Your task to perform on an android device: Open maps Image 0: 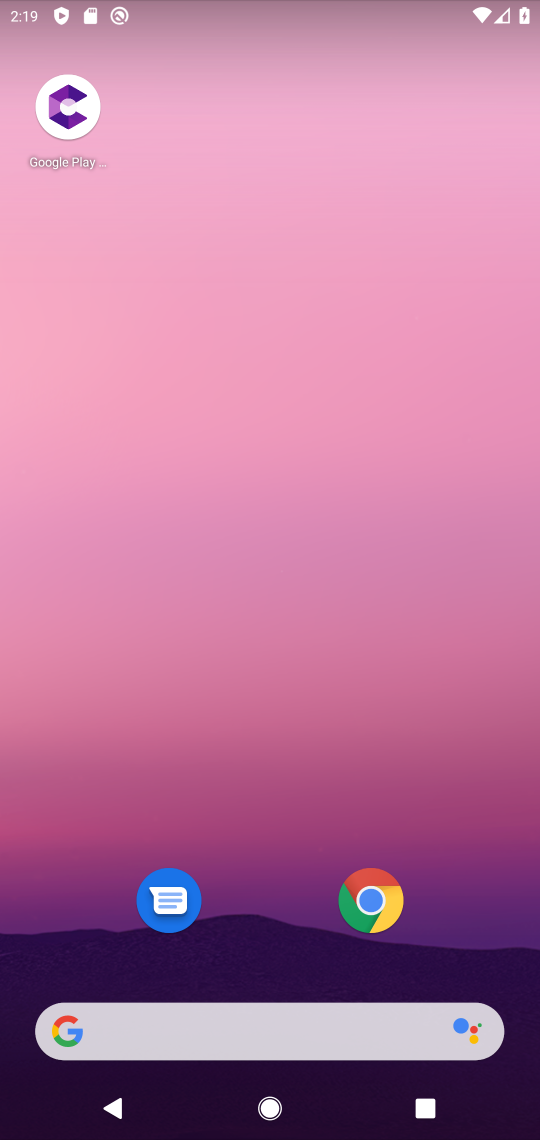
Step 0: drag from (470, 917) to (306, 187)
Your task to perform on an android device: Open maps Image 1: 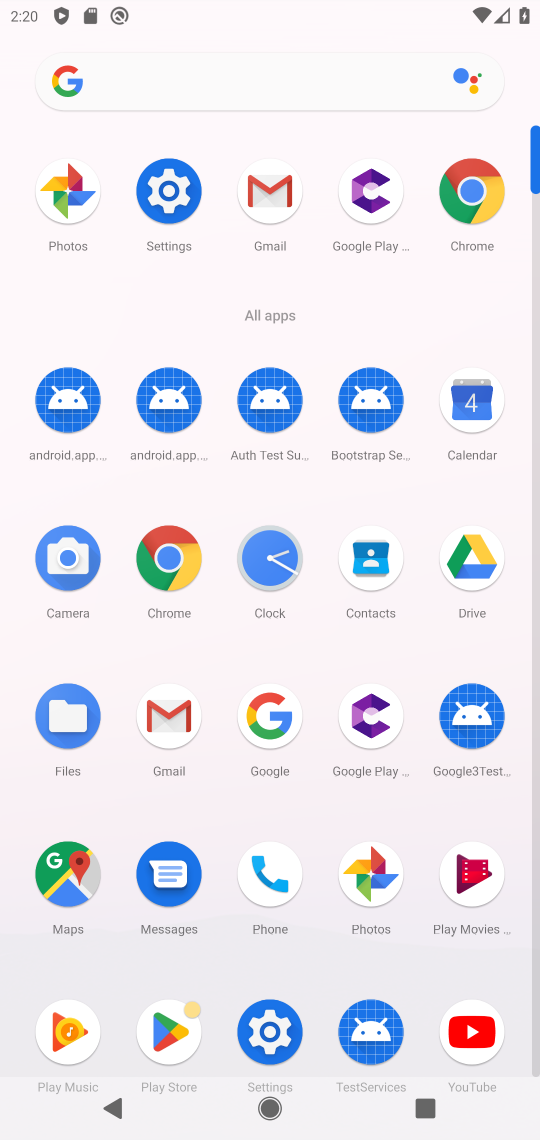
Step 1: click (61, 873)
Your task to perform on an android device: Open maps Image 2: 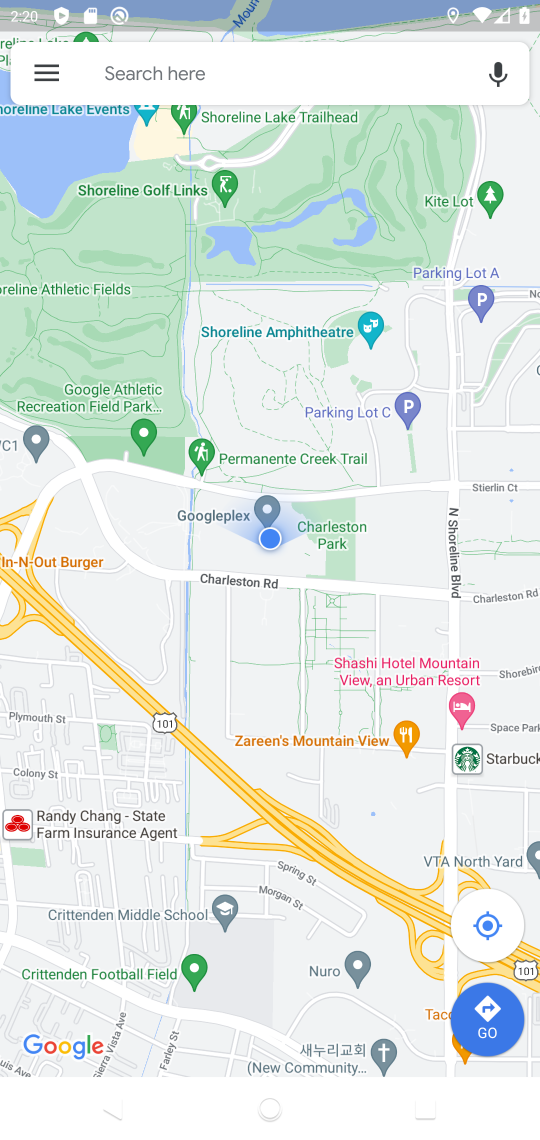
Step 2: task complete